Your task to perform on an android device: add a contact in the contacts app Image 0: 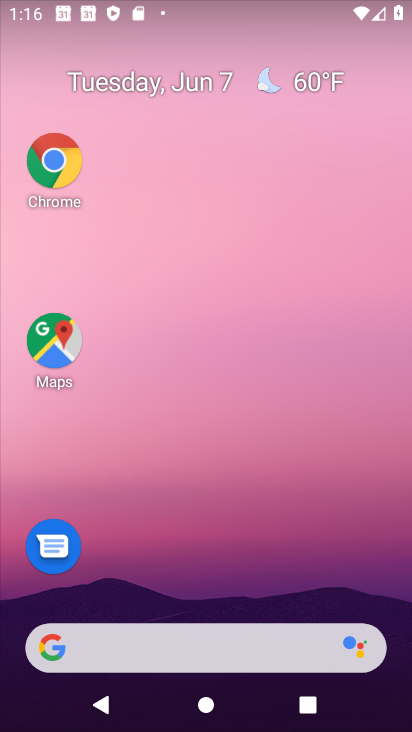
Step 0: drag from (172, 551) to (190, 41)
Your task to perform on an android device: add a contact in the contacts app Image 1: 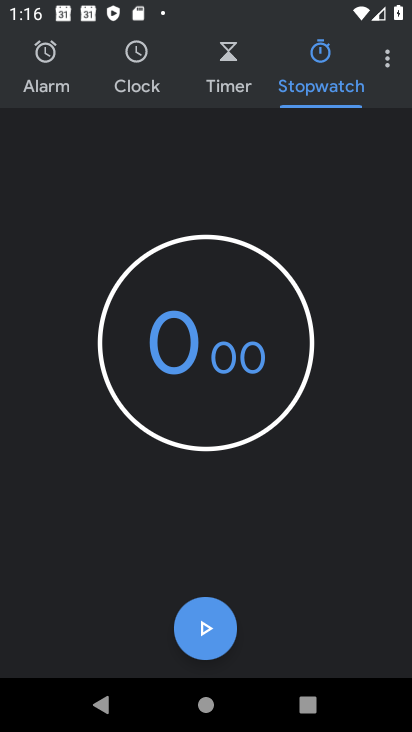
Step 1: press home button
Your task to perform on an android device: add a contact in the contacts app Image 2: 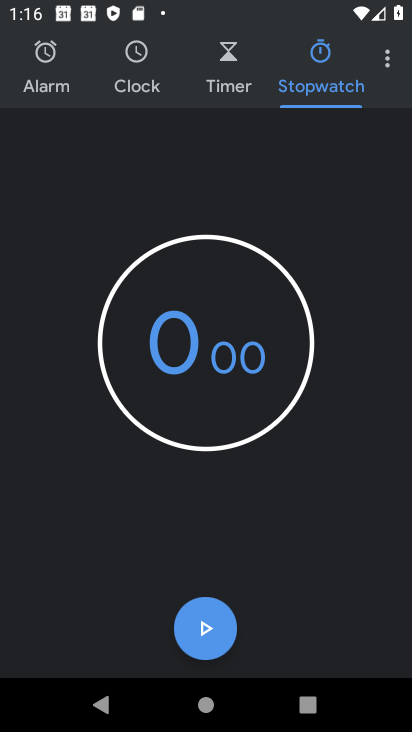
Step 2: drag from (293, 583) to (319, 211)
Your task to perform on an android device: add a contact in the contacts app Image 3: 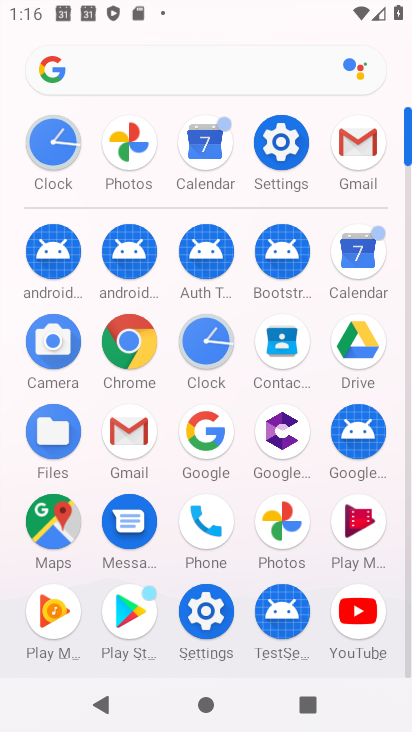
Step 3: click (269, 349)
Your task to perform on an android device: add a contact in the contacts app Image 4: 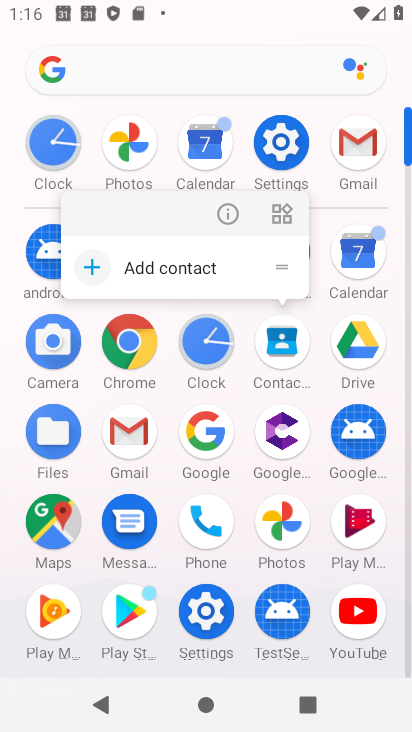
Step 4: click (239, 208)
Your task to perform on an android device: add a contact in the contacts app Image 5: 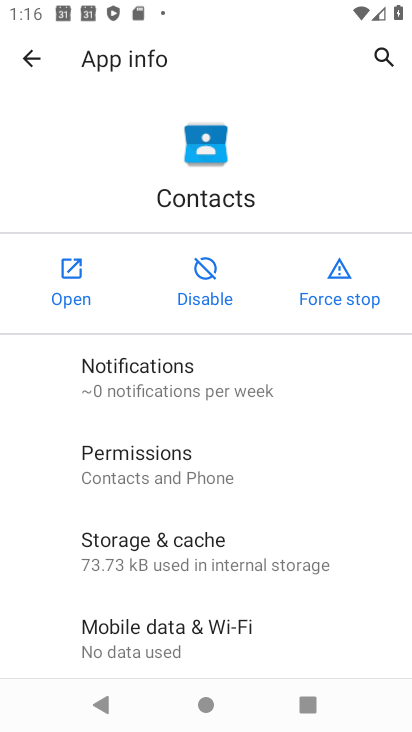
Step 5: click (65, 285)
Your task to perform on an android device: add a contact in the contacts app Image 6: 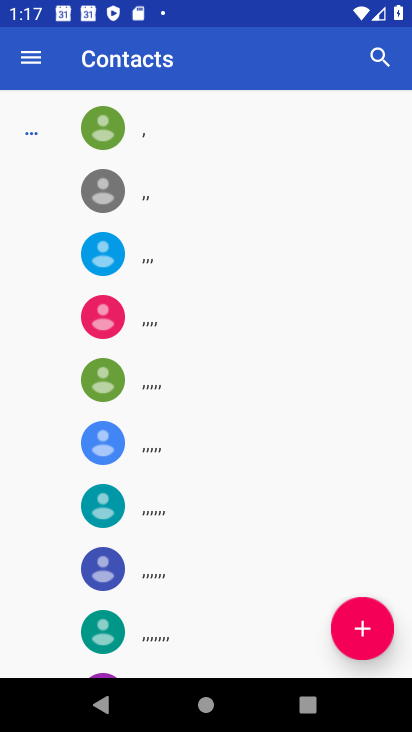
Step 6: drag from (181, 555) to (239, 244)
Your task to perform on an android device: add a contact in the contacts app Image 7: 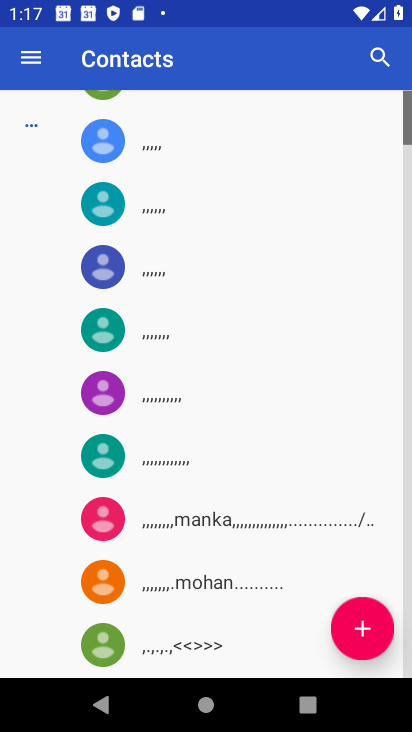
Step 7: click (372, 635)
Your task to perform on an android device: add a contact in the contacts app Image 8: 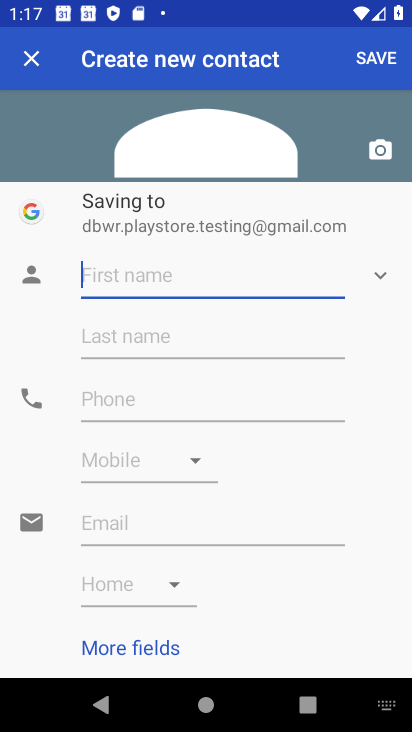
Step 8: type "contacts app"
Your task to perform on an android device: add a contact in the contacts app Image 9: 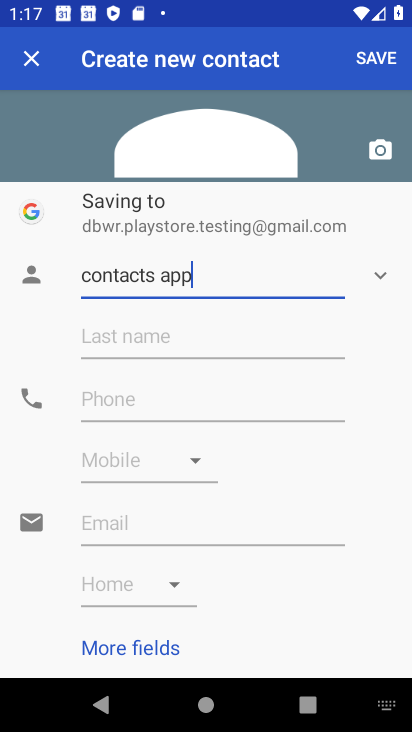
Step 9: type ""
Your task to perform on an android device: add a contact in the contacts app Image 10: 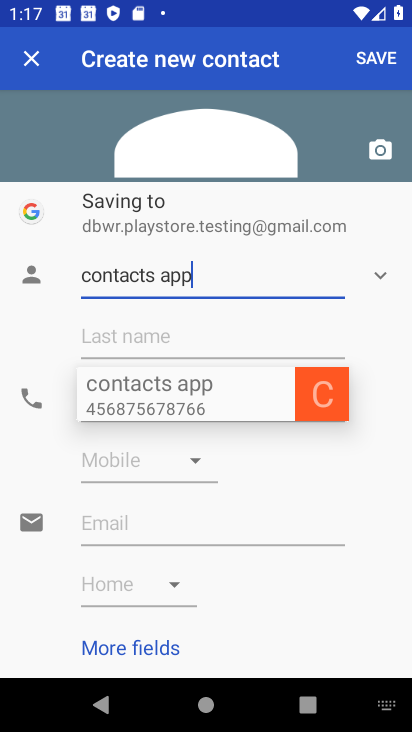
Step 10: click (387, 54)
Your task to perform on an android device: add a contact in the contacts app Image 11: 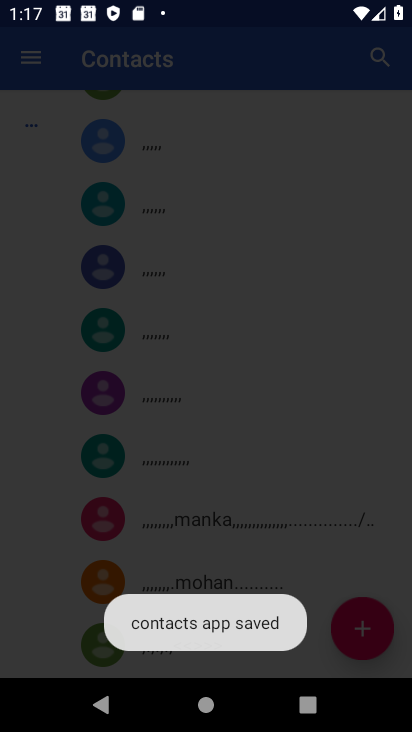
Step 11: task complete